Your task to perform on an android device: turn off notifications in google photos Image 0: 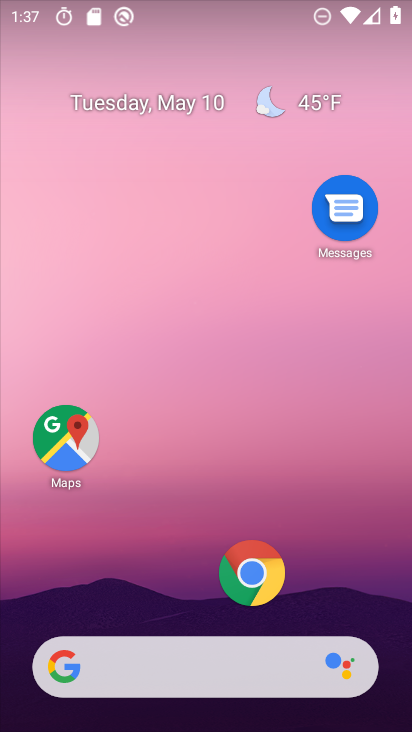
Step 0: drag from (192, 568) to (199, 205)
Your task to perform on an android device: turn off notifications in google photos Image 1: 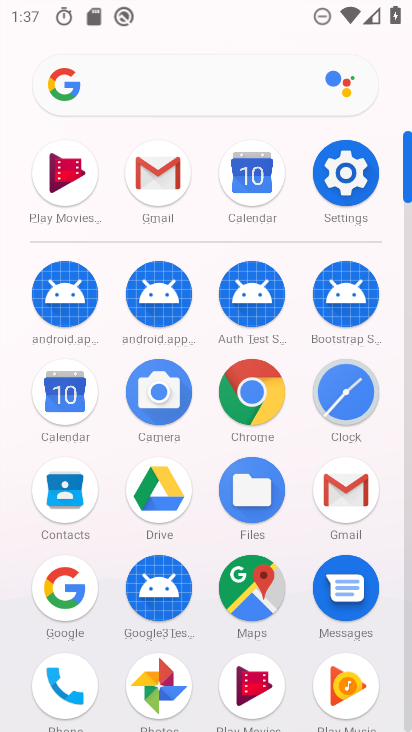
Step 1: click (145, 666)
Your task to perform on an android device: turn off notifications in google photos Image 2: 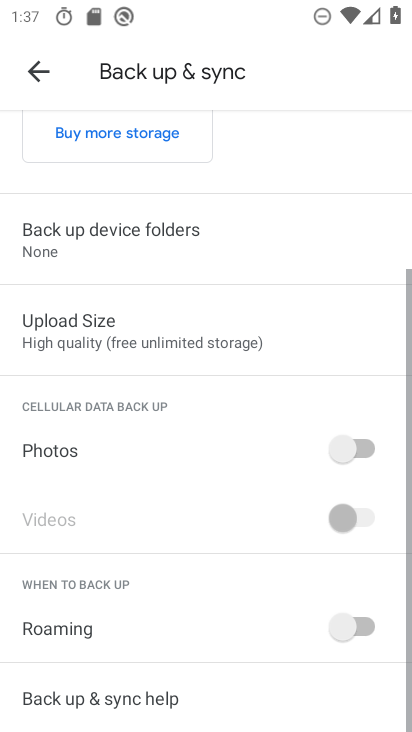
Step 2: drag from (121, 235) to (172, 691)
Your task to perform on an android device: turn off notifications in google photos Image 3: 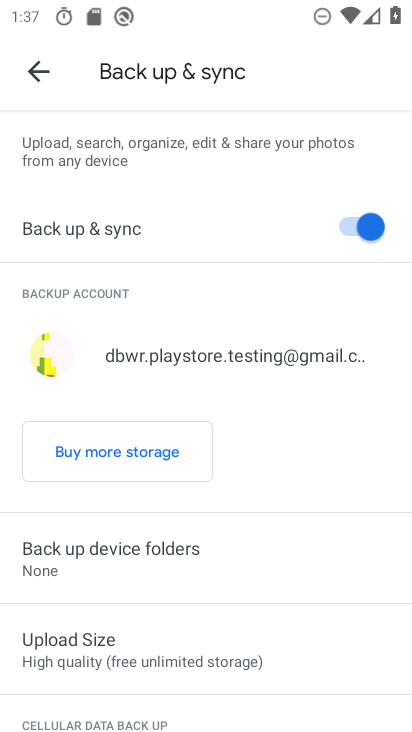
Step 3: drag from (164, 543) to (233, 139)
Your task to perform on an android device: turn off notifications in google photos Image 4: 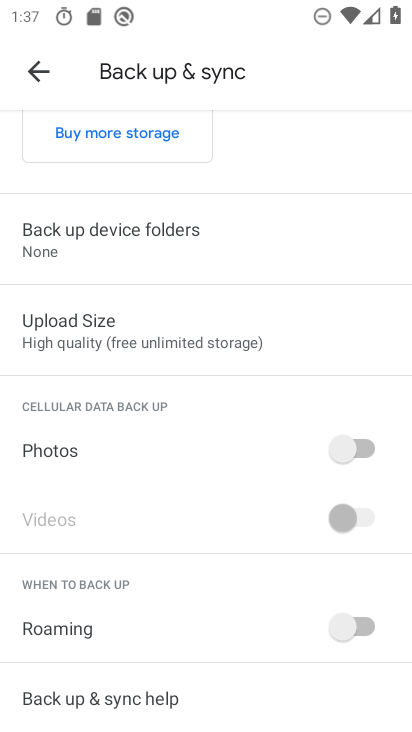
Step 4: drag from (182, 492) to (245, 126)
Your task to perform on an android device: turn off notifications in google photos Image 5: 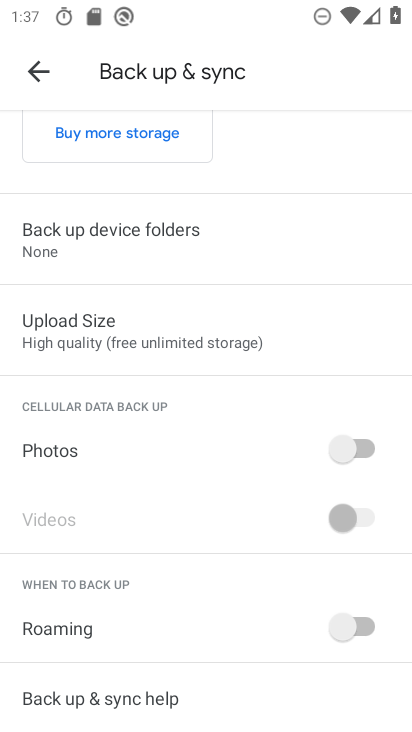
Step 5: click (41, 71)
Your task to perform on an android device: turn off notifications in google photos Image 6: 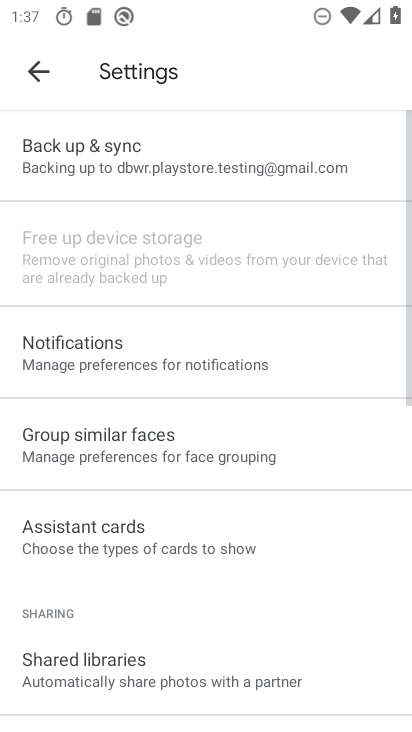
Step 6: click (122, 339)
Your task to perform on an android device: turn off notifications in google photos Image 7: 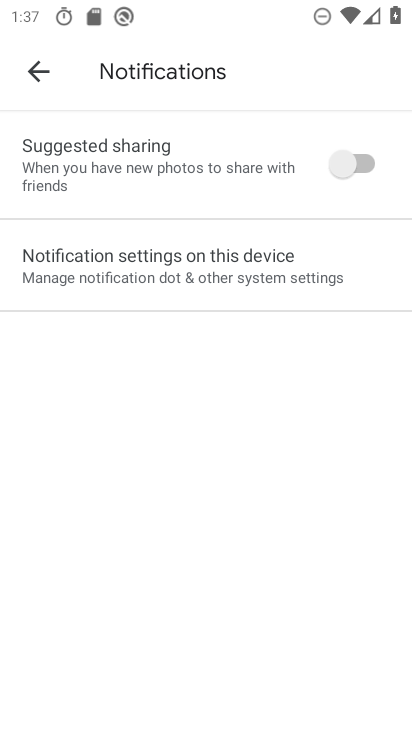
Step 7: task complete